Your task to perform on an android device: Show me recent news Image 0: 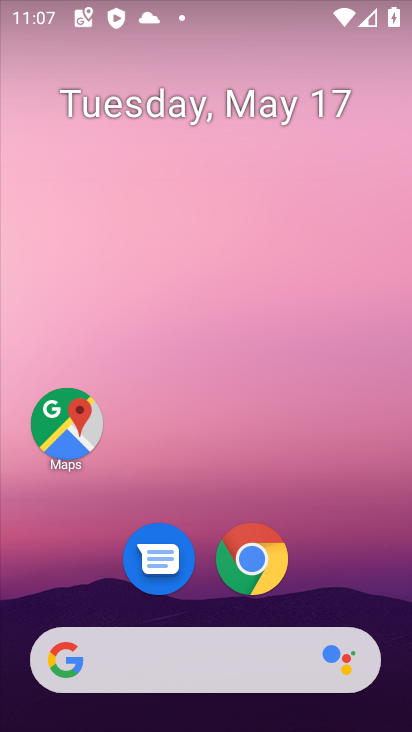
Step 0: click (237, 650)
Your task to perform on an android device: Show me recent news Image 1: 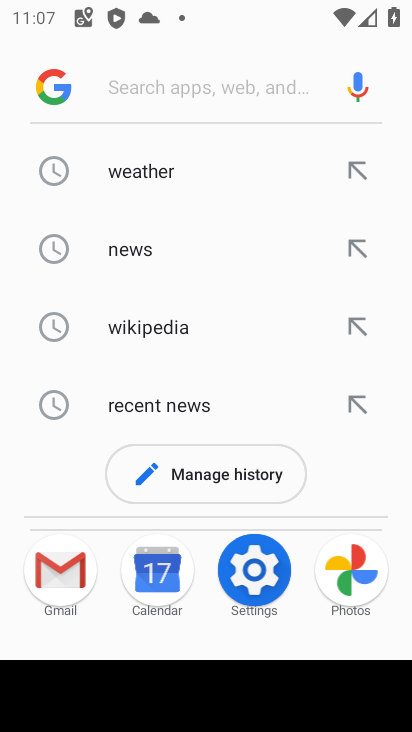
Step 1: click (214, 396)
Your task to perform on an android device: Show me recent news Image 2: 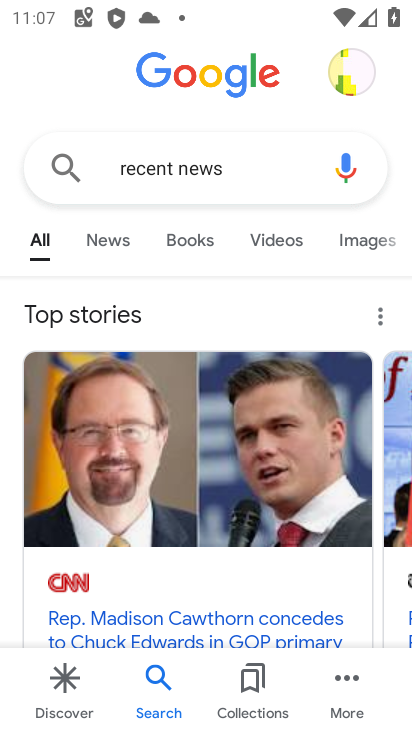
Step 2: task complete